Your task to perform on an android device: turn off notifications settings in the gmail app Image 0: 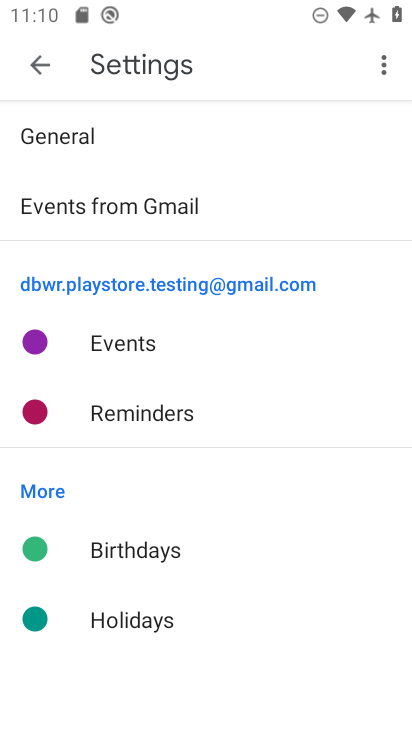
Step 0: press back button
Your task to perform on an android device: turn off notifications settings in the gmail app Image 1: 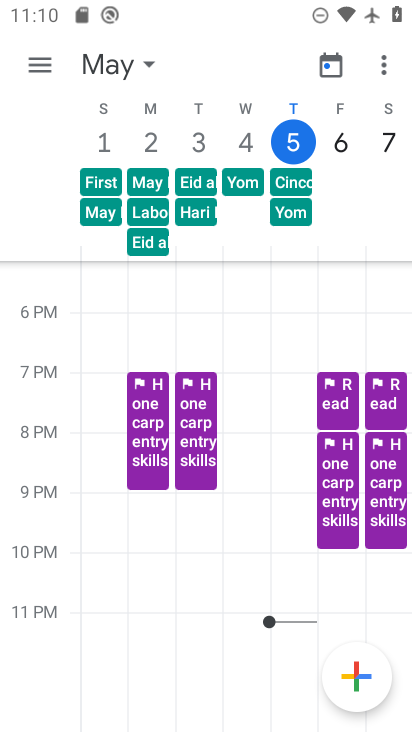
Step 1: press back button
Your task to perform on an android device: turn off notifications settings in the gmail app Image 2: 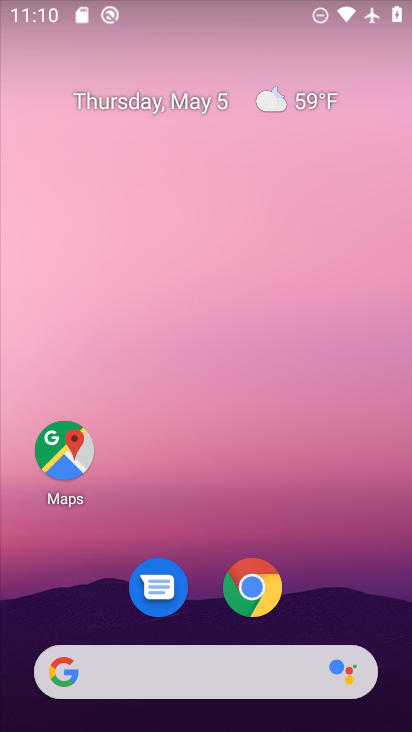
Step 2: drag from (363, 614) to (311, 28)
Your task to perform on an android device: turn off notifications settings in the gmail app Image 3: 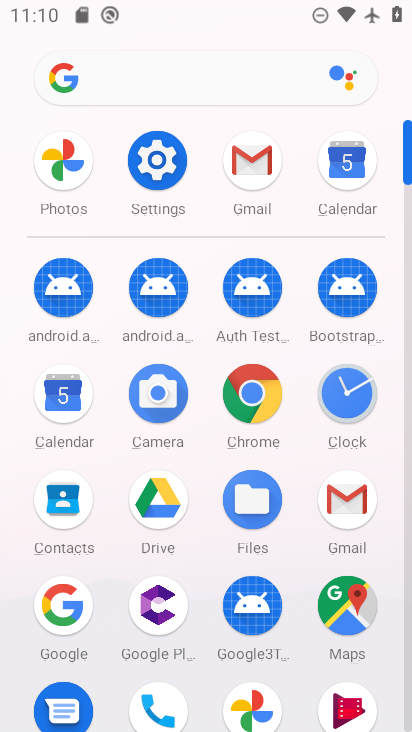
Step 3: click (160, 155)
Your task to perform on an android device: turn off notifications settings in the gmail app Image 4: 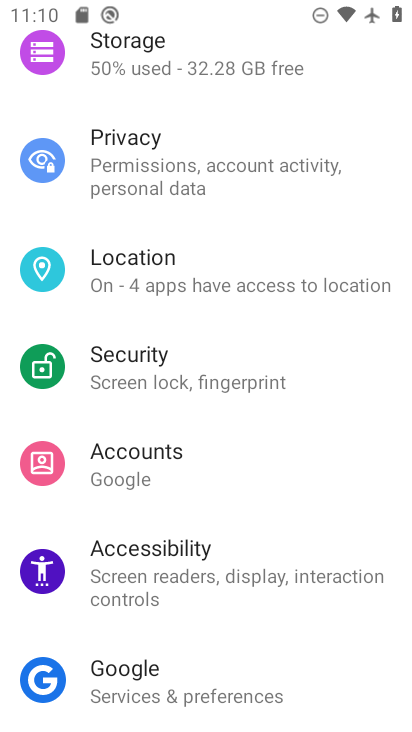
Step 4: drag from (176, 120) to (191, 543)
Your task to perform on an android device: turn off notifications settings in the gmail app Image 5: 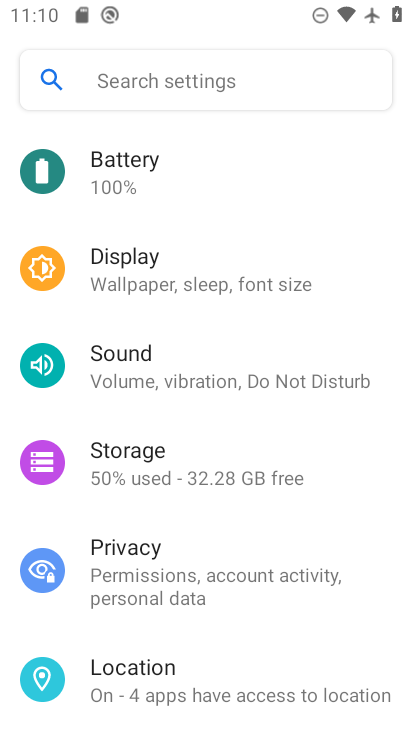
Step 5: drag from (189, 299) to (189, 569)
Your task to perform on an android device: turn off notifications settings in the gmail app Image 6: 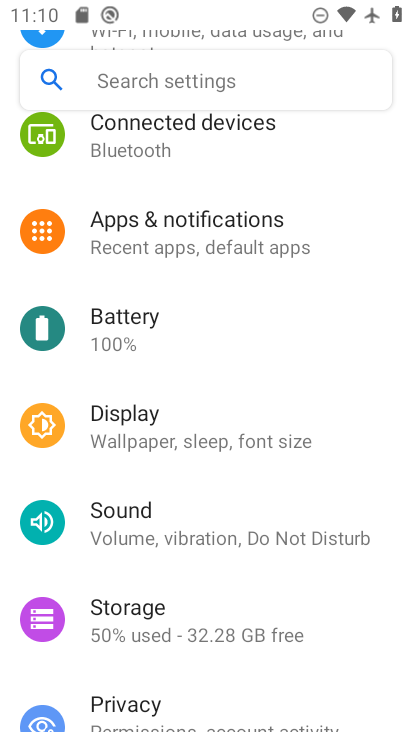
Step 6: click (169, 229)
Your task to perform on an android device: turn off notifications settings in the gmail app Image 7: 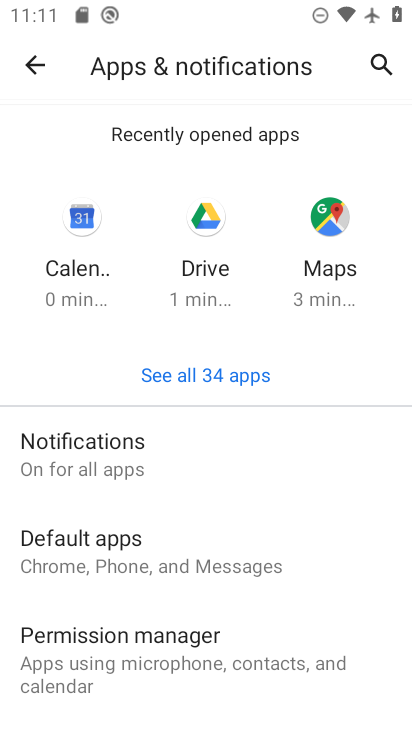
Step 7: click (131, 430)
Your task to perform on an android device: turn off notifications settings in the gmail app Image 8: 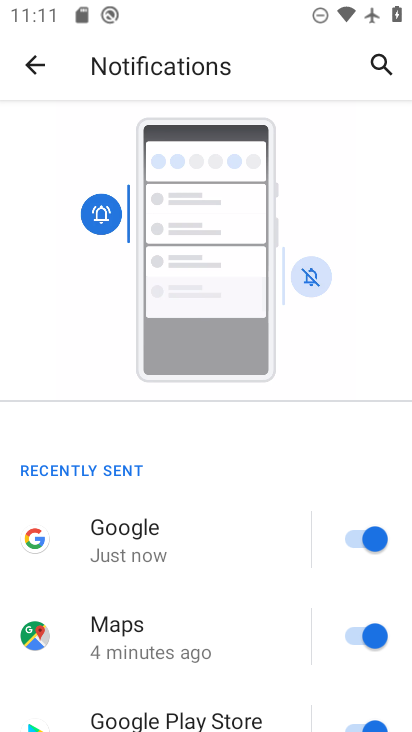
Step 8: drag from (246, 509) to (278, 97)
Your task to perform on an android device: turn off notifications settings in the gmail app Image 9: 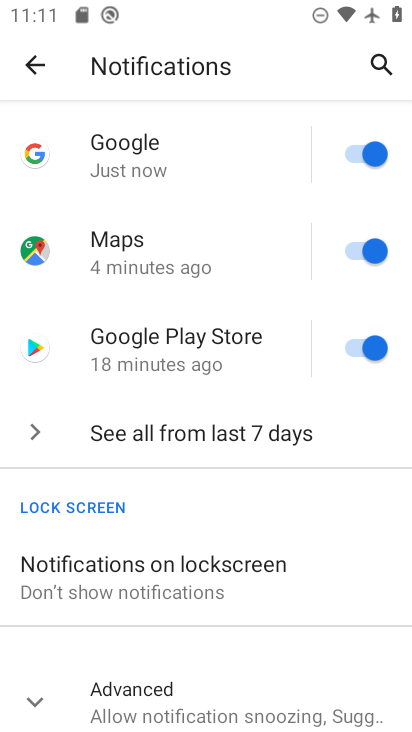
Step 9: click (149, 429)
Your task to perform on an android device: turn off notifications settings in the gmail app Image 10: 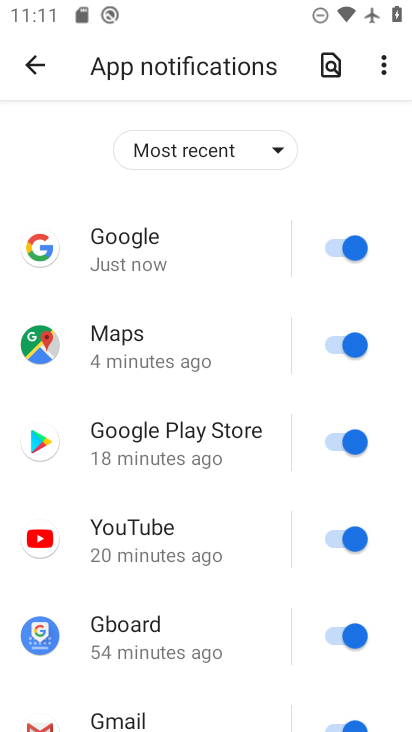
Step 10: drag from (155, 580) to (191, 151)
Your task to perform on an android device: turn off notifications settings in the gmail app Image 11: 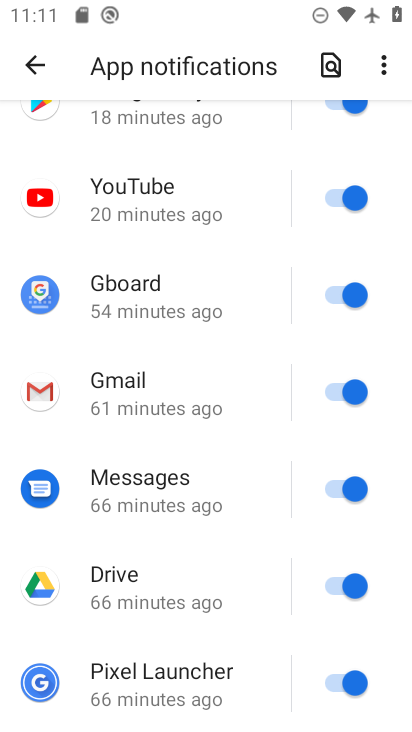
Step 11: click (336, 383)
Your task to perform on an android device: turn off notifications settings in the gmail app Image 12: 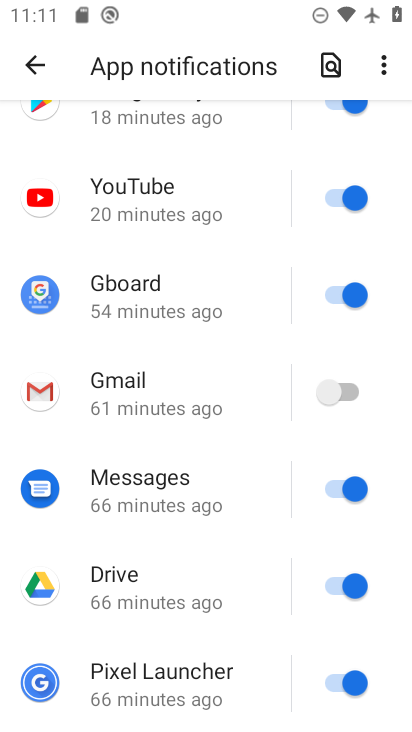
Step 12: task complete